Your task to perform on an android device: Open the stopwatch Image 0: 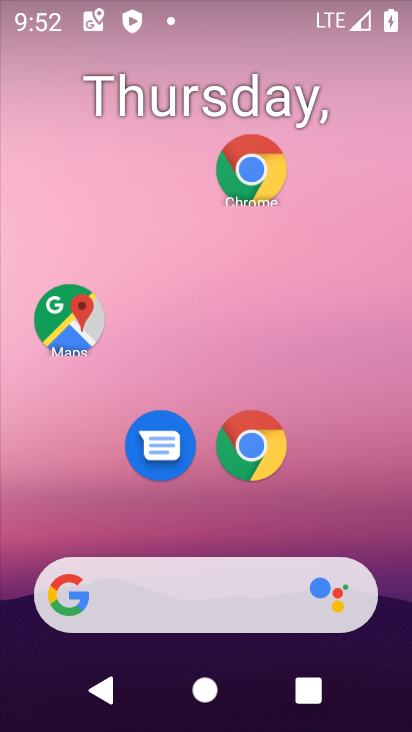
Step 0: drag from (223, 527) to (204, 174)
Your task to perform on an android device: Open the stopwatch Image 1: 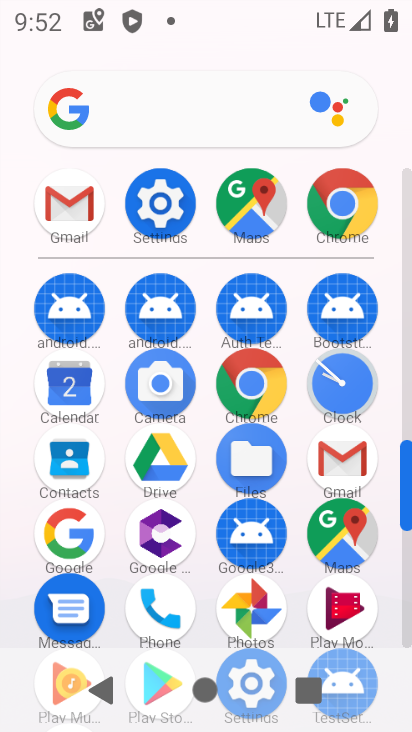
Step 1: click (362, 387)
Your task to perform on an android device: Open the stopwatch Image 2: 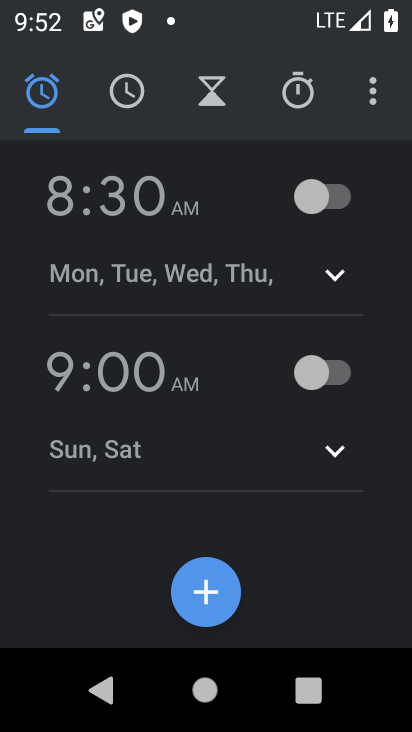
Step 2: click (305, 114)
Your task to perform on an android device: Open the stopwatch Image 3: 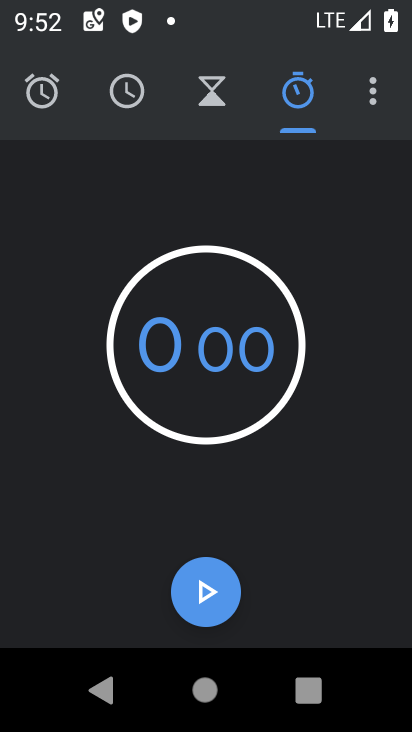
Step 3: task complete